Your task to perform on an android device: toggle javascript in the chrome app Image 0: 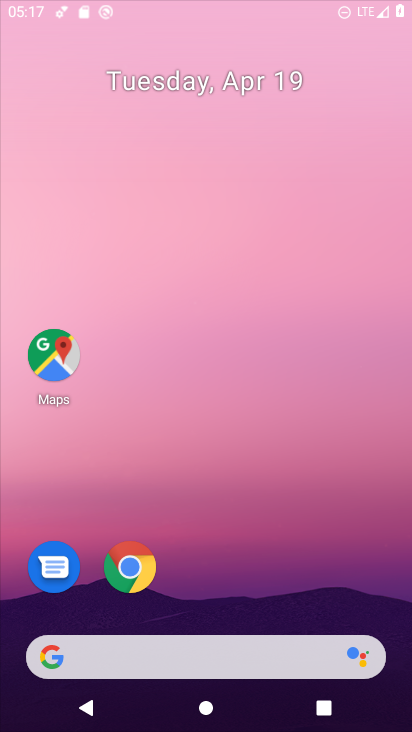
Step 0: click (345, 19)
Your task to perform on an android device: toggle javascript in the chrome app Image 1: 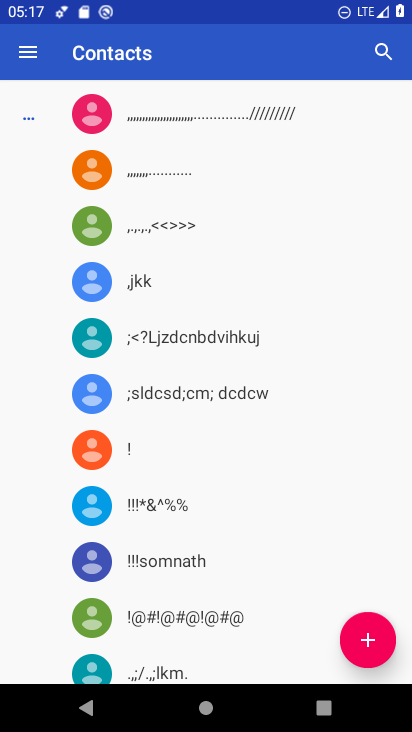
Step 1: press home button
Your task to perform on an android device: toggle javascript in the chrome app Image 2: 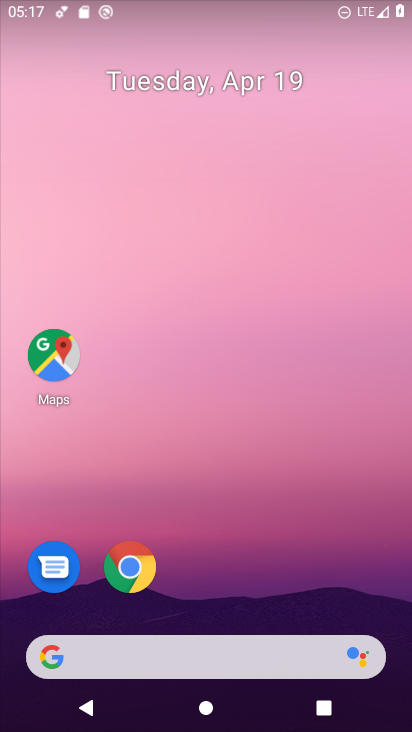
Step 2: drag from (319, 564) to (272, 6)
Your task to perform on an android device: toggle javascript in the chrome app Image 3: 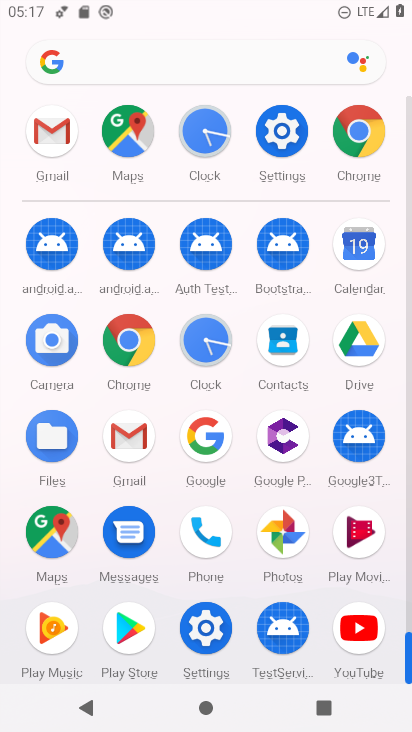
Step 3: click (120, 341)
Your task to perform on an android device: toggle javascript in the chrome app Image 4: 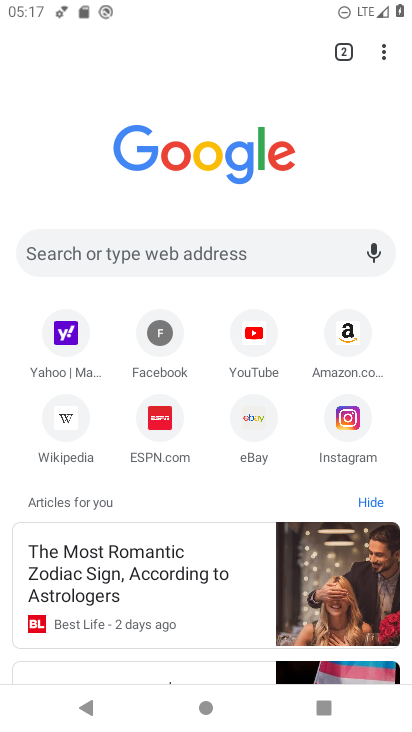
Step 4: click (385, 54)
Your task to perform on an android device: toggle javascript in the chrome app Image 5: 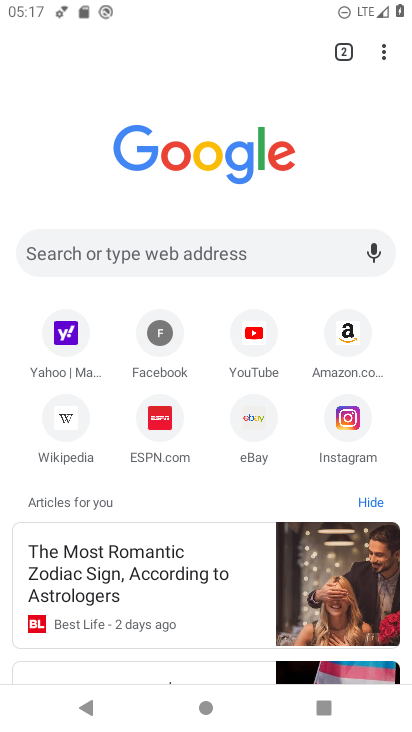
Step 5: click (379, 48)
Your task to perform on an android device: toggle javascript in the chrome app Image 6: 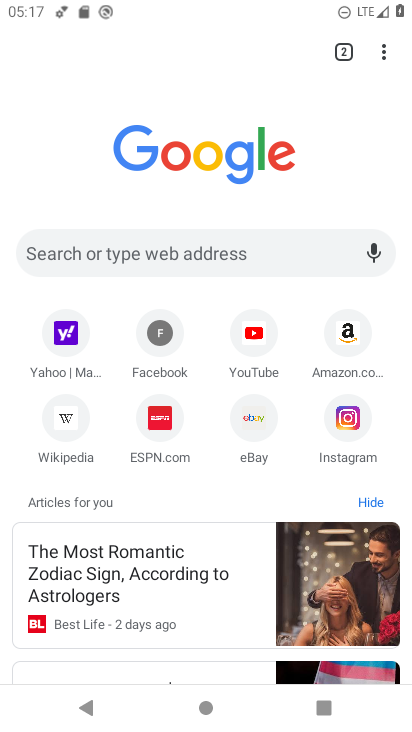
Step 6: click (387, 49)
Your task to perform on an android device: toggle javascript in the chrome app Image 7: 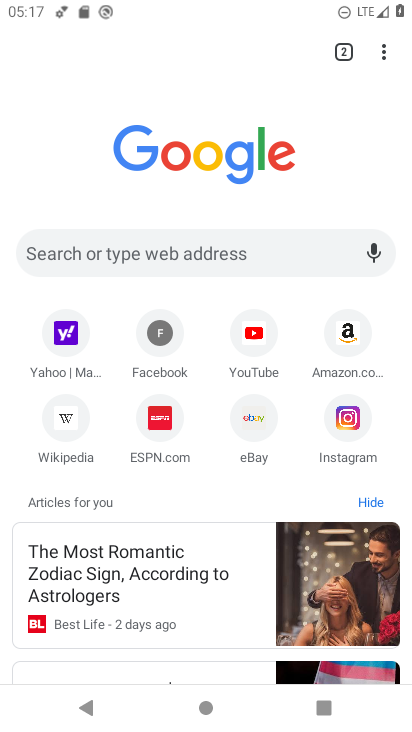
Step 7: click (372, 53)
Your task to perform on an android device: toggle javascript in the chrome app Image 8: 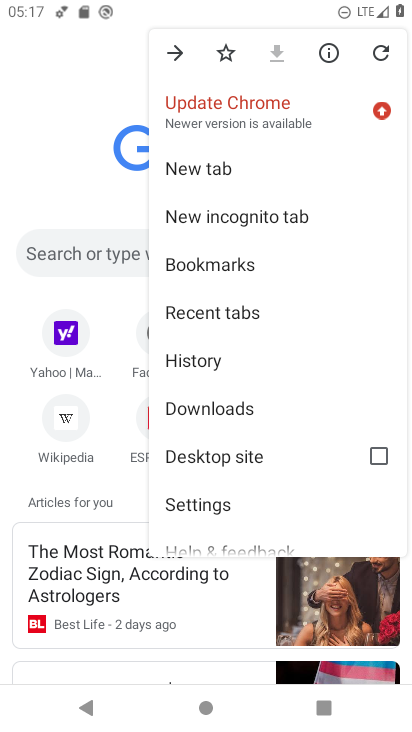
Step 8: click (256, 502)
Your task to perform on an android device: toggle javascript in the chrome app Image 9: 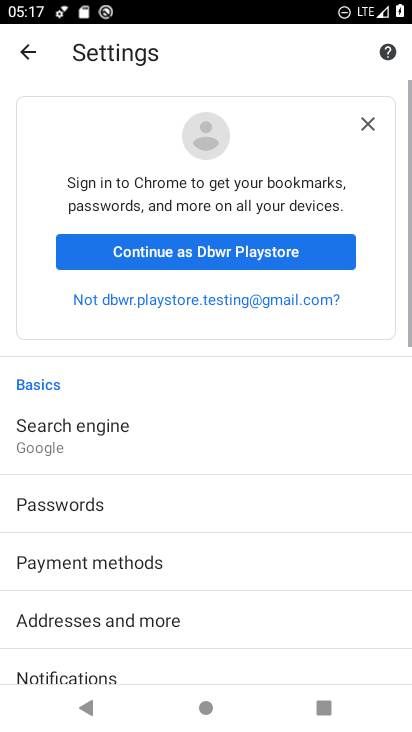
Step 9: drag from (256, 502) to (236, 99)
Your task to perform on an android device: toggle javascript in the chrome app Image 10: 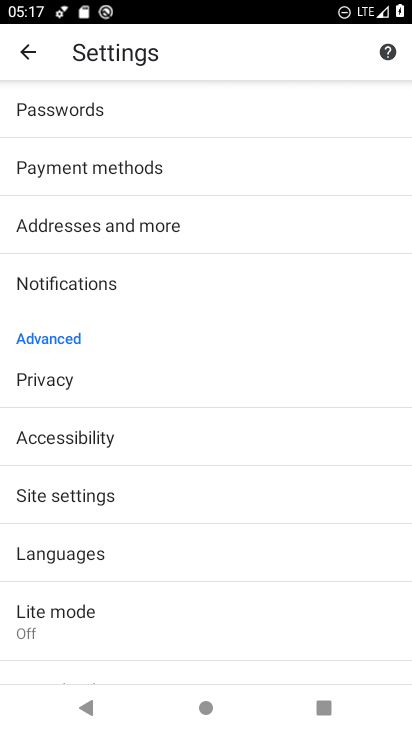
Step 10: click (119, 492)
Your task to perform on an android device: toggle javascript in the chrome app Image 11: 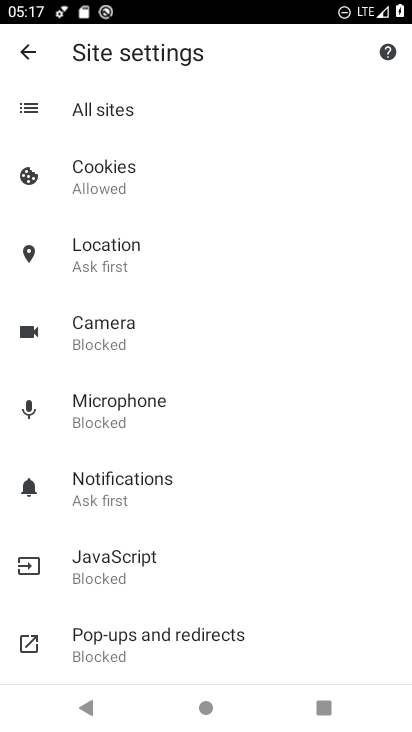
Step 11: click (124, 553)
Your task to perform on an android device: toggle javascript in the chrome app Image 12: 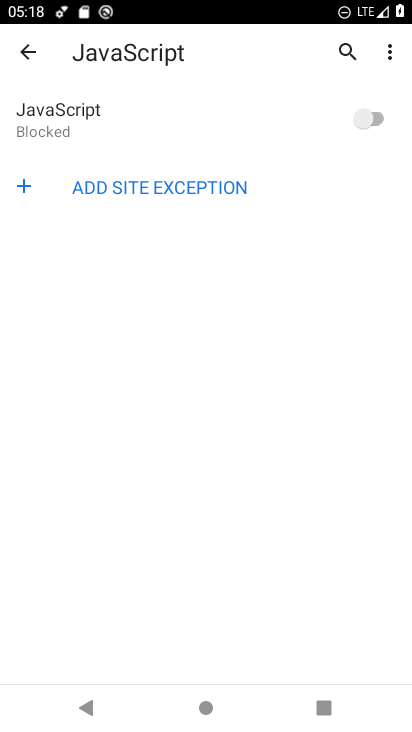
Step 12: click (376, 115)
Your task to perform on an android device: toggle javascript in the chrome app Image 13: 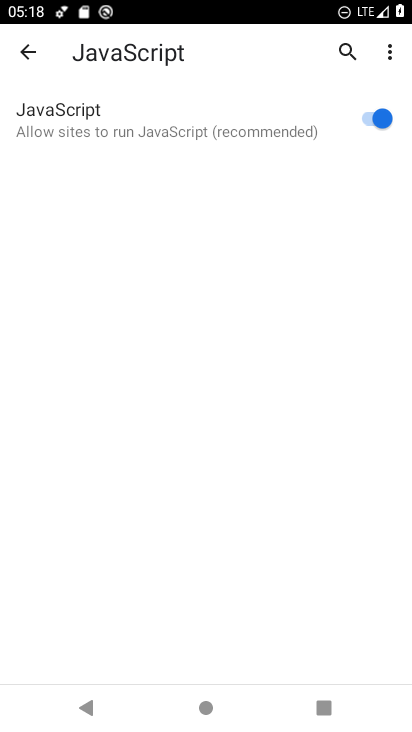
Step 13: task complete